Your task to perform on an android device: open a bookmark in the chrome app Image 0: 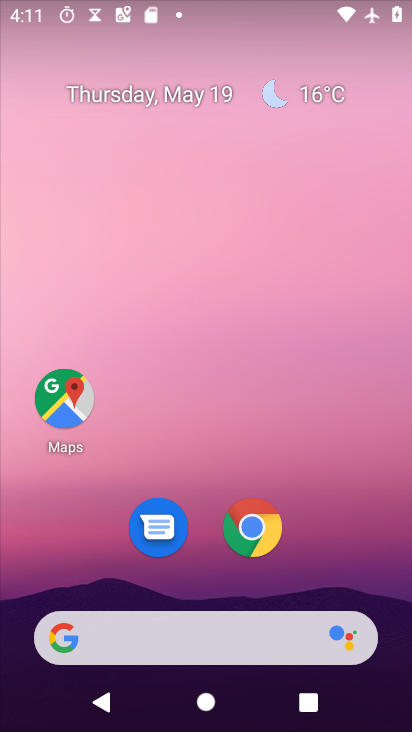
Step 0: click (252, 536)
Your task to perform on an android device: open a bookmark in the chrome app Image 1: 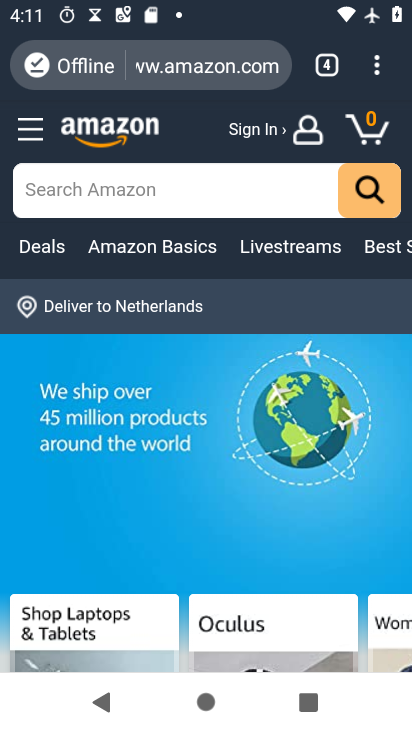
Step 1: press home button
Your task to perform on an android device: open a bookmark in the chrome app Image 2: 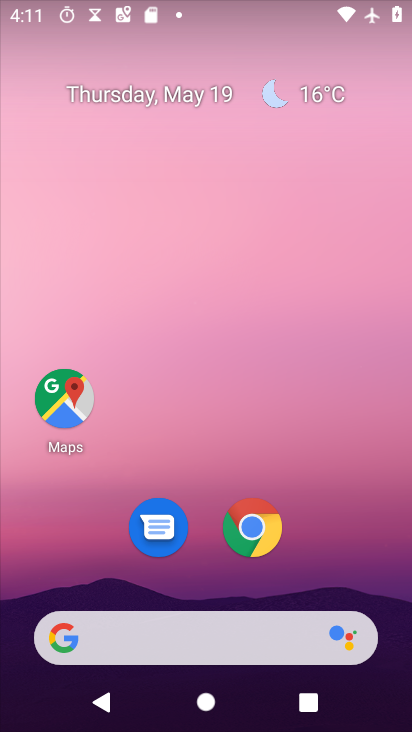
Step 2: click (264, 518)
Your task to perform on an android device: open a bookmark in the chrome app Image 3: 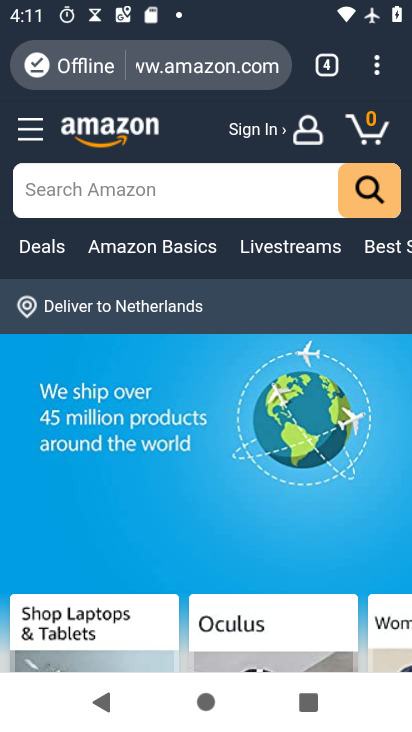
Step 3: click (383, 77)
Your task to perform on an android device: open a bookmark in the chrome app Image 4: 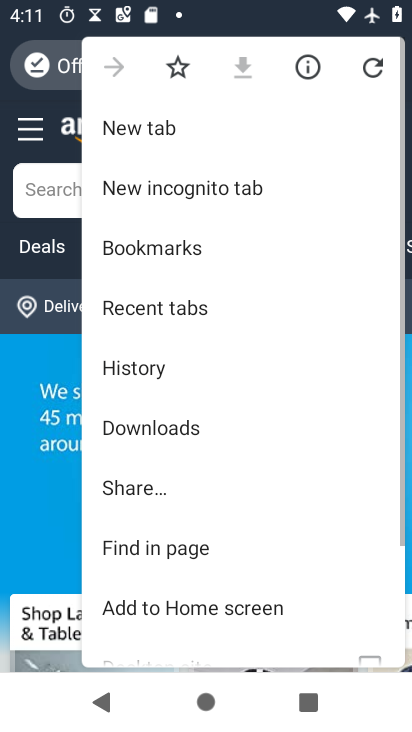
Step 4: click (207, 245)
Your task to perform on an android device: open a bookmark in the chrome app Image 5: 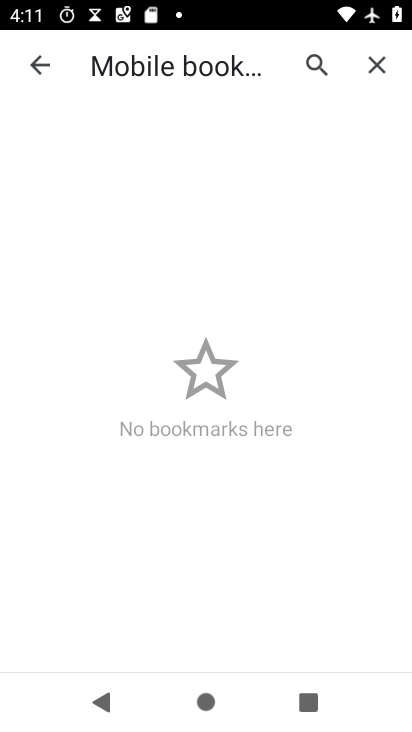
Step 5: task complete